Your task to perform on an android device: change notifications settings Image 0: 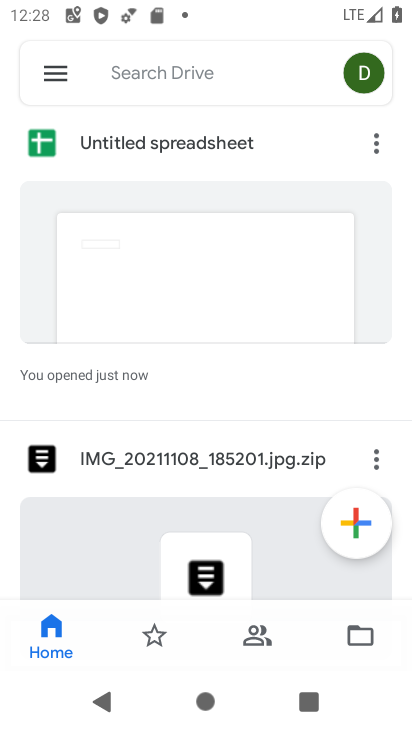
Step 0: press home button
Your task to perform on an android device: change notifications settings Image 1: 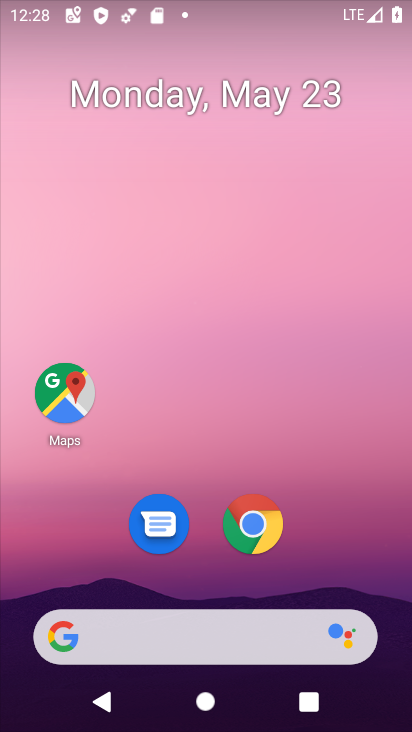
Step 1: drag from (227, 451) to (243, 30)
Your task to perform on an android device: change notifications settings Image 2: 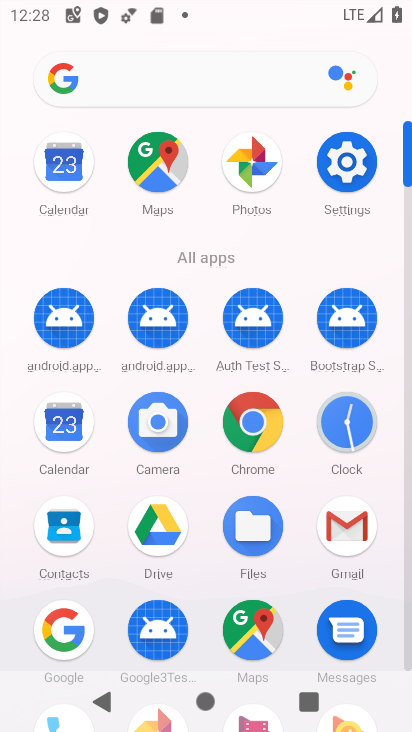
Step 2: click (337, 162)
Your task to perform on an android device: change notifications settings Image 3: 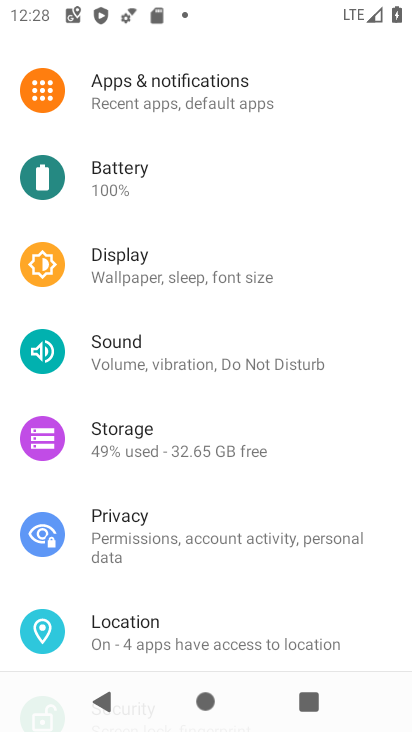
Step 3: drag from (234, 195) to (205, 555)
Your task to perform on an android device: change notifications settings Image 4: 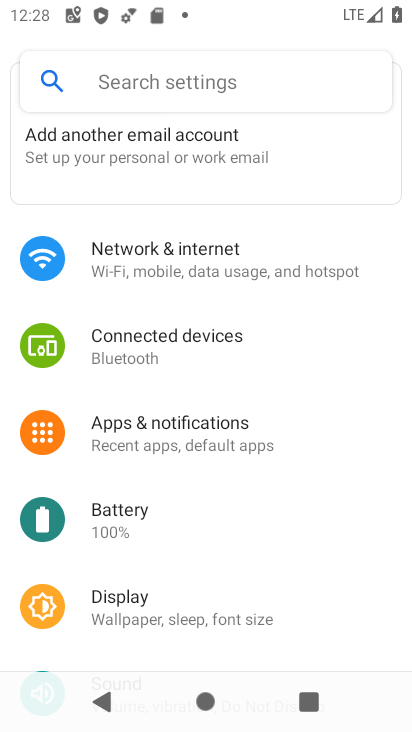
Step 4: click (215, 433)
Your task to perform on an android device: change notifications settings Image 5: 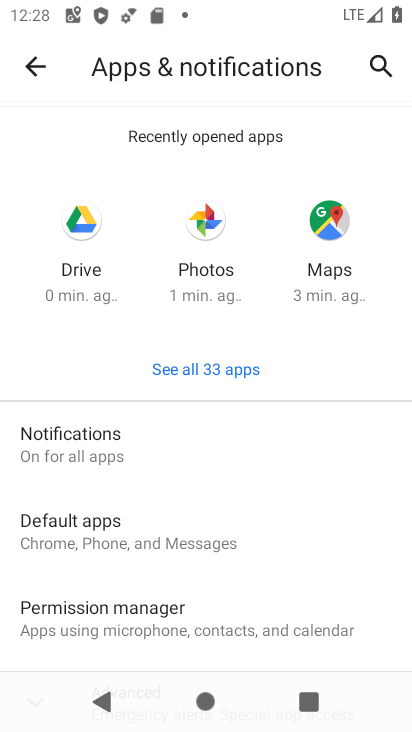
Step 5: click (215, 451)
Your task to perform on an android device: change notifications settings Image 6: 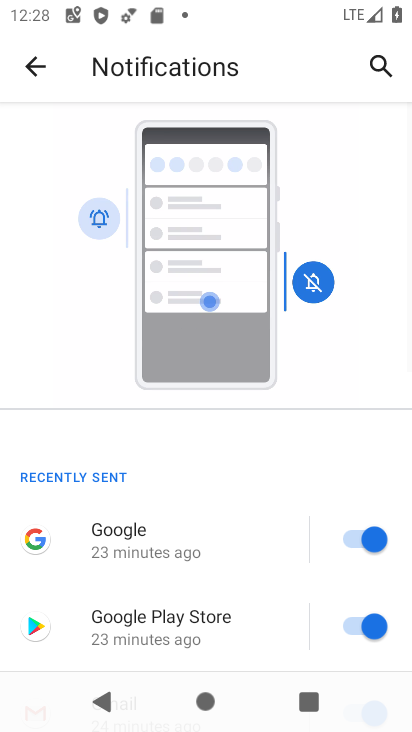
Step 6: drag from (215, 488) to (257, 103)
Your task to perform on an android device: change notifications settings Image 7: 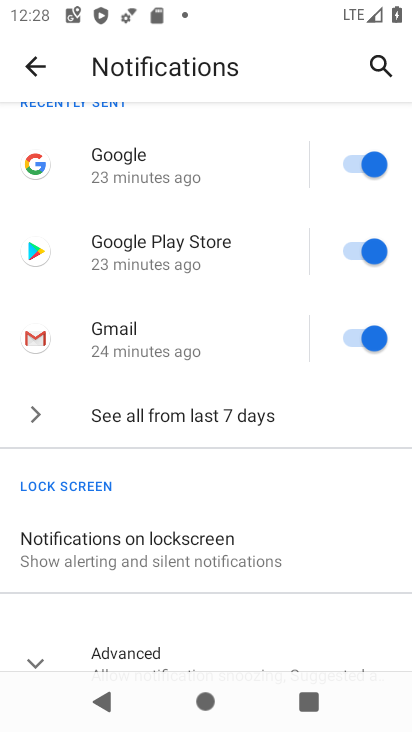
Step 7: click (223, 412)
Your task to perform on an android device: change notifications settings Image 8: 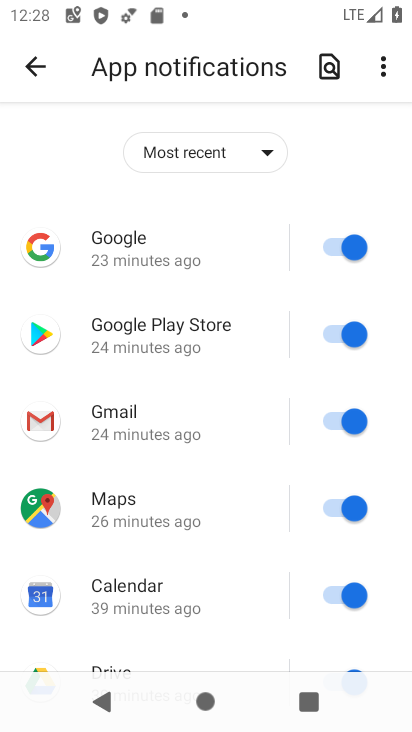
Step 8: click (340, 248)
Your task to perform on an android device: change notifications settings Image 9: 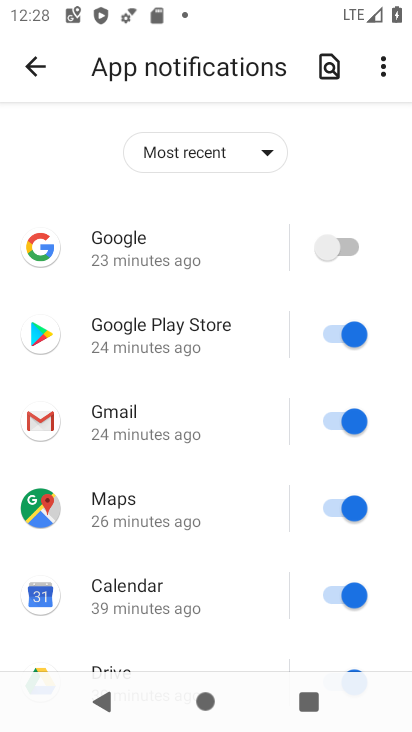
Step 9: click (345, 333)
Your task to perform on an android device: change notifications settings Image 10: 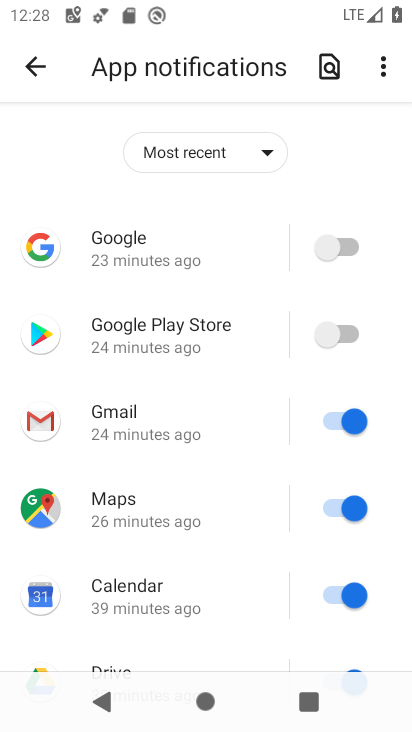
Step 10: click (348, 425)
Your task to perform on an android device: change notifications settings Image 11: 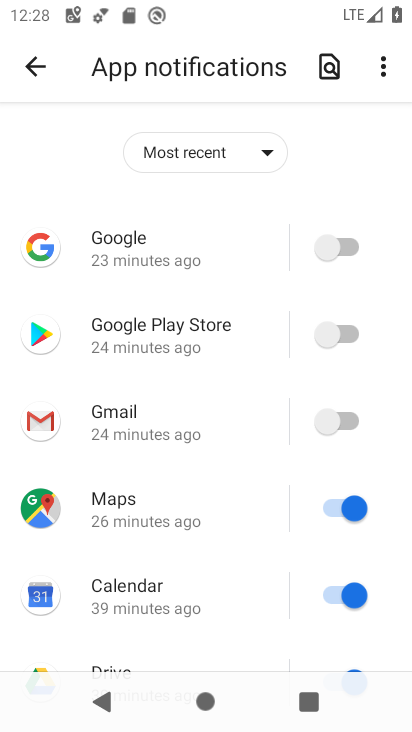
Step 11: click (345, 502)
Your task to perform on an android device: change notifications settings Image 12: 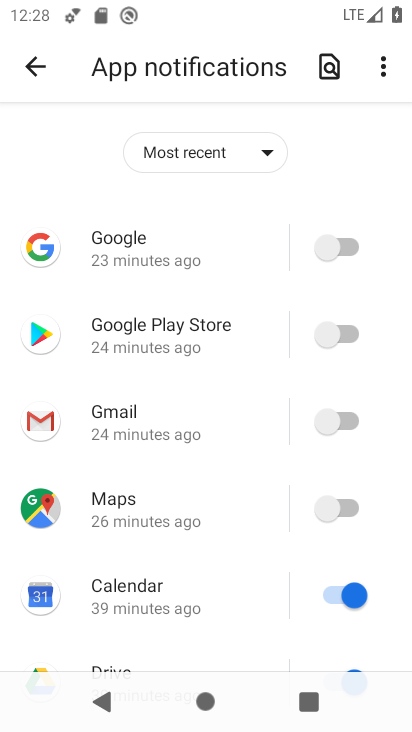
Step 12: click (351, 585)
Your task to perform on an android device: change notifications settings Image 13: 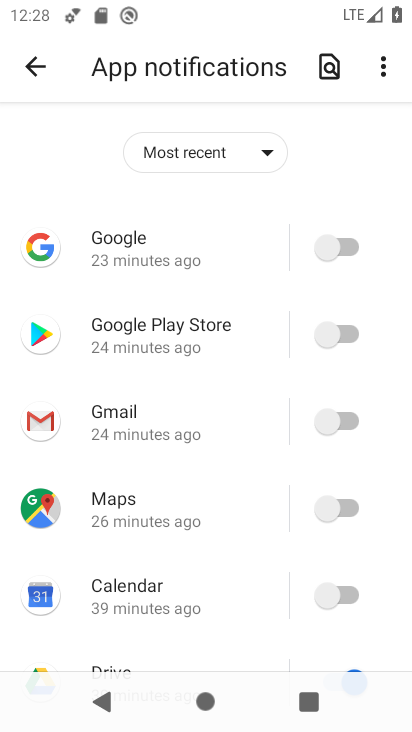
Step 13: drag from (258, 547) to (218, 144)
Your task to perform on an android device: change notifications settings Image 14: 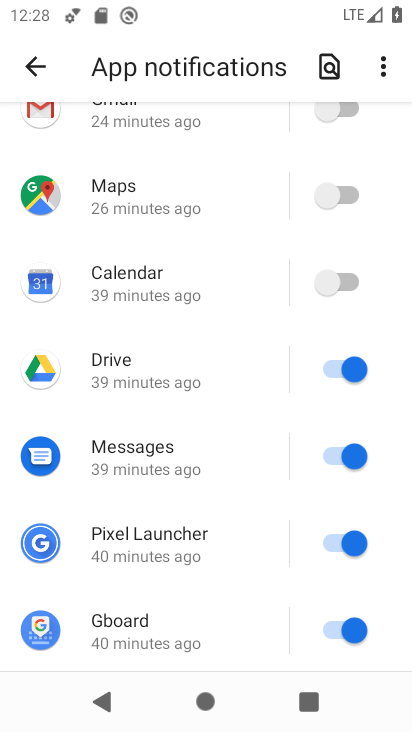
Step 14: click (340, 363)
Your task to perform on an android device: change notifications settings Image 15: 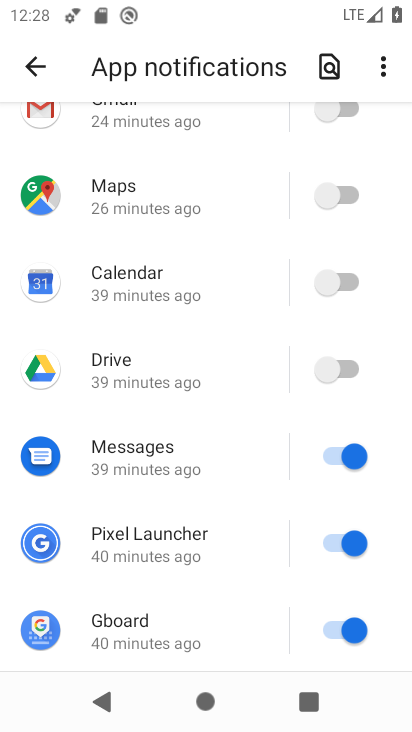
Step 15: click (351, 458)
Your task to perform on an android device: change notifications settings Image 16: 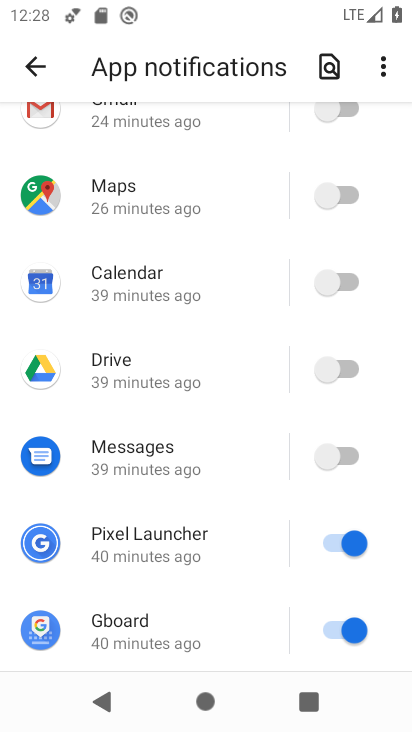
Step 16: click (350, 542)
Your task to perform on an android device: change notifications settings Image 17: 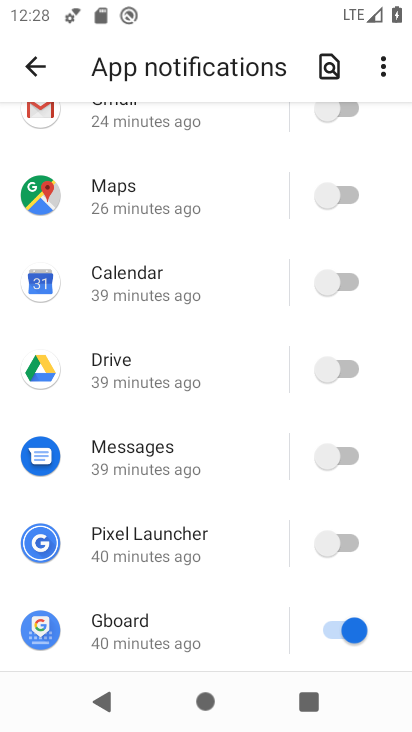
Step 17: click (346, 629)
Your task to perform on an android device: change notifications settings Image 18: 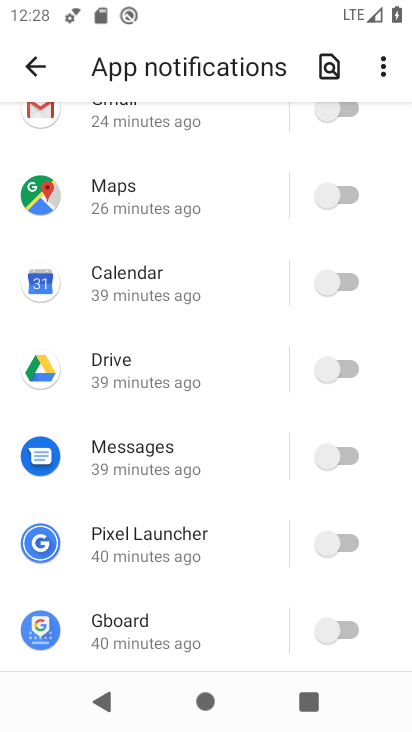
Step 18: task complete